Your task to perform on an android device: turn on sleep mode Image 0: 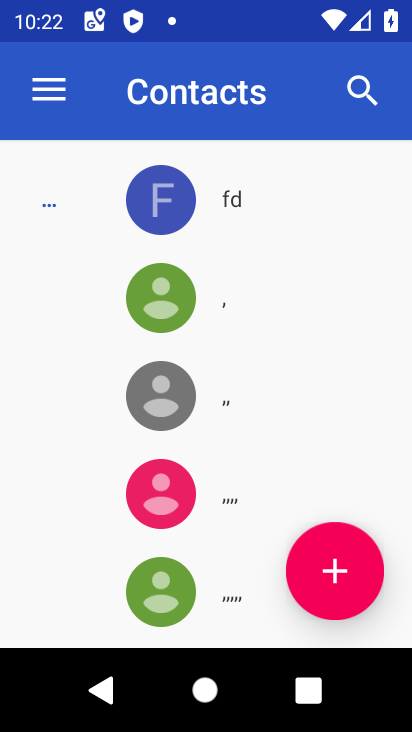
Step 0: press home button
Your task to perform on an android device: turn on sleep mode Image 1: 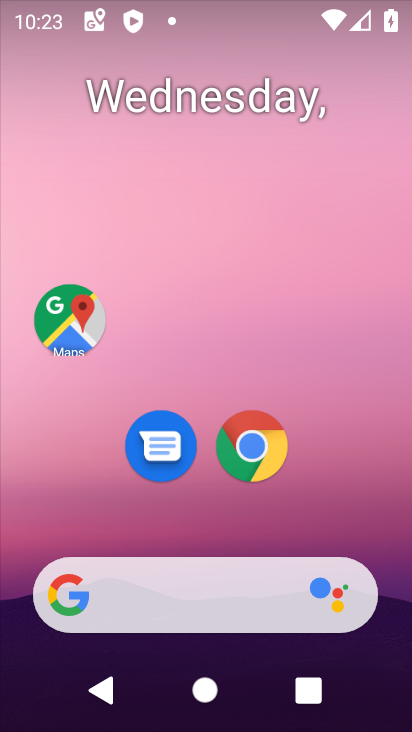
Step 1: task complete